Your task to perform on an android device: change your default location settings in chrome Image 0: 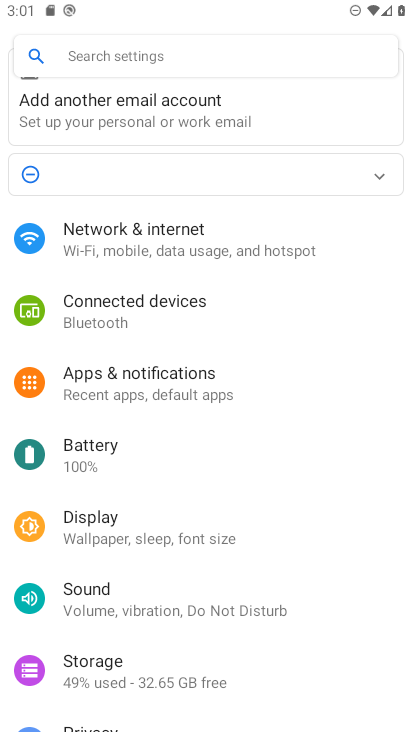
Step 0: press home button
Your task to perform on an android device: change your default location settings in chrome Image 1: 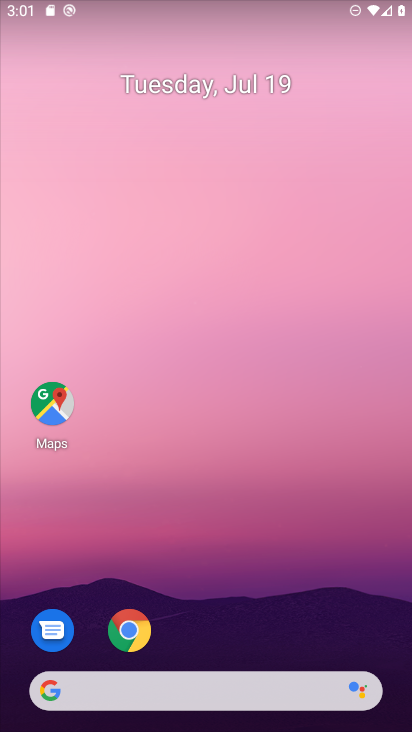
Step 1: click (132, 628)
Your task to perform on an android device: change your default location settings in chrome Image 2: 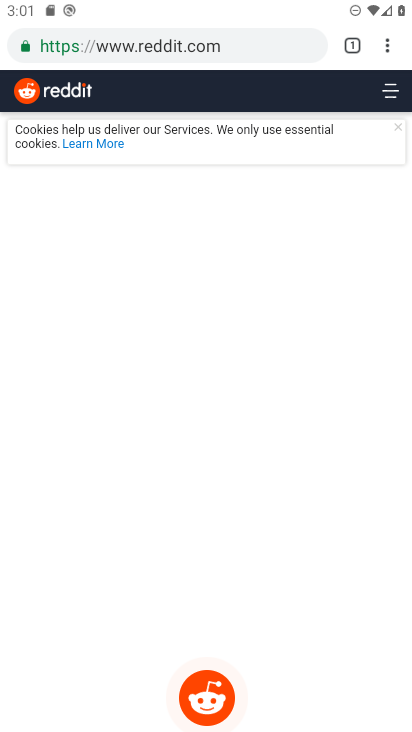
Step 2: click (386, 49)
Your task to perform on an android device: change your default location settings in chrome Image 3: 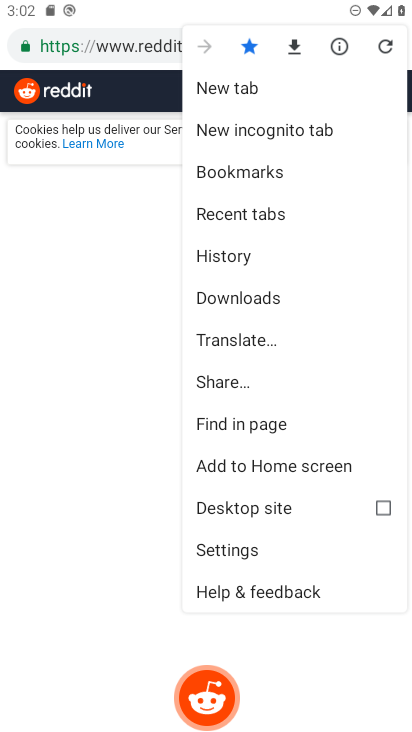
Step 3: click (232, 542)
Your task to perform on an android device: change your default location settings in chrome Image 4: 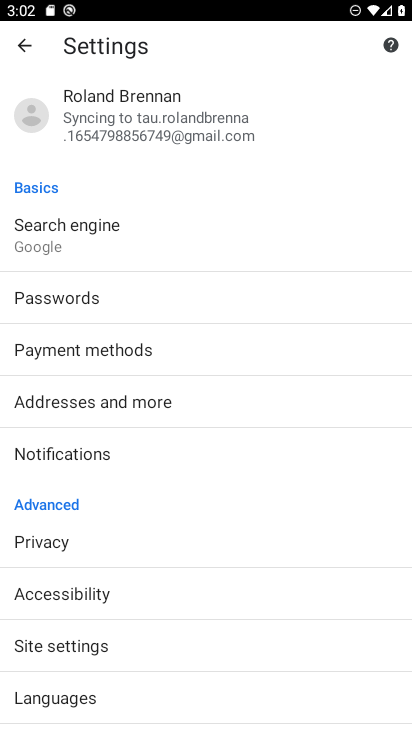
Step 4: drag from (130, 598) to (150, 416)
Your task to perform on an android device: change your default location settings in chrome Image 5: 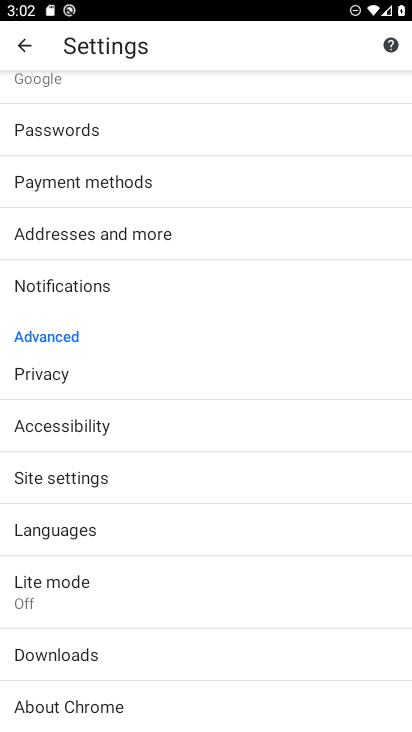
Step 5: click (59, 478)
Your task to perform on an android device: change your default location settings in chrome Image 6: 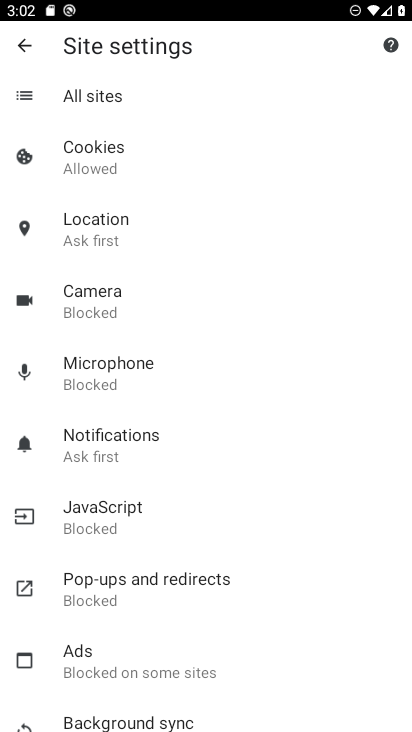
Step 6: click (84, 224)
Your task to perform on an android device: change your default location settings in chrome Image 7: 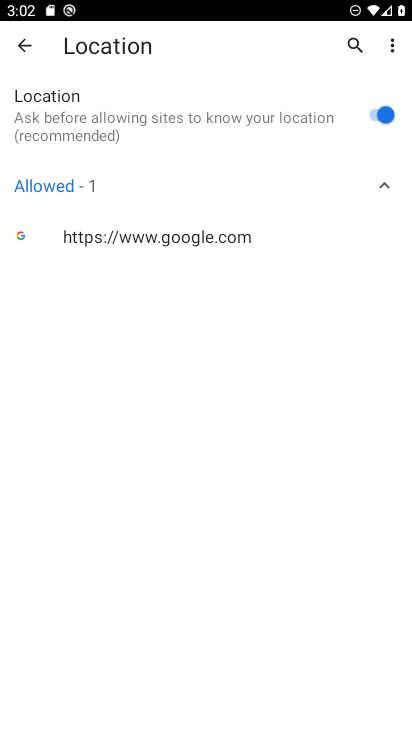
Step 7: click (371, 114)
Your task to perform on an android device: change your default location settings in chrome Image 8: 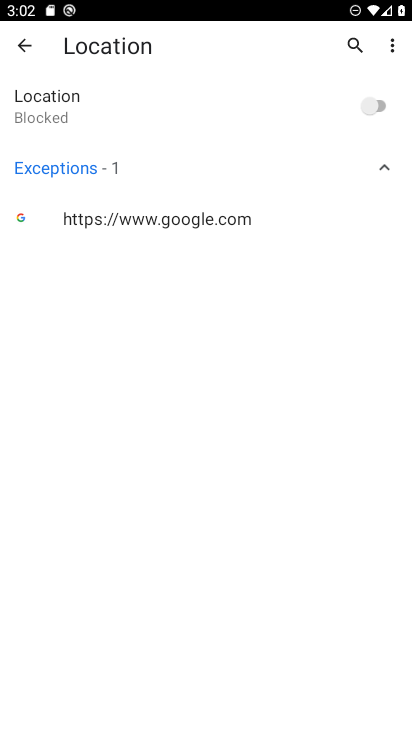
Step 8: task complete